Your task to perform on an android device: change your default location settings in chrome Image 0: 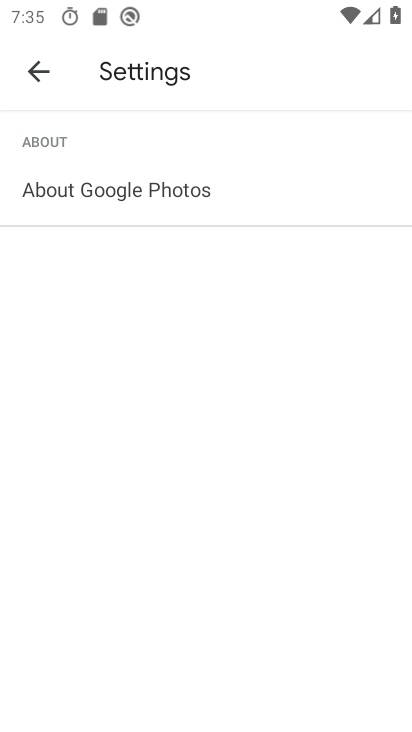
Step 0: press home button
Your task to perform on an android device: change your default location settings in chrome Image 1: 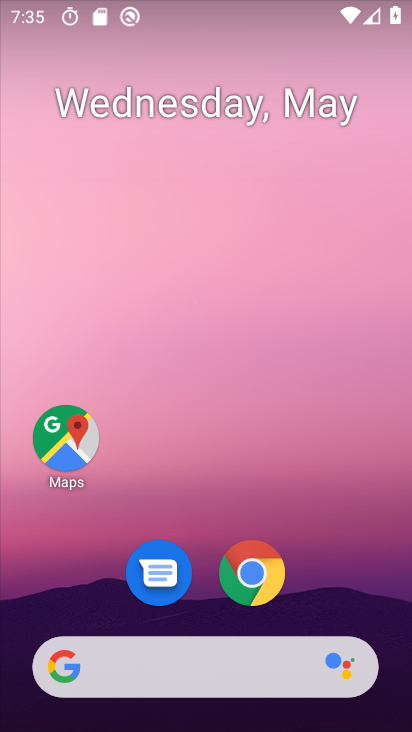
Step 1: click (252, 565)
Your task to perform on an android device: change your default location settings in chrome Image 2: 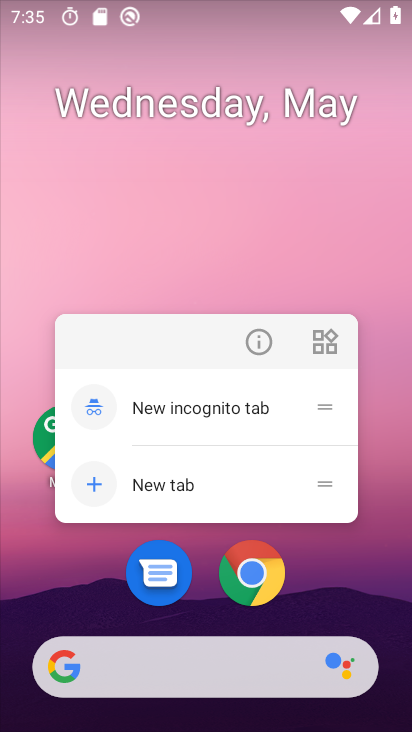
Step 2: click (255, 562)
Your task to perform on an android device: change your default location settings in chrome Image 3: 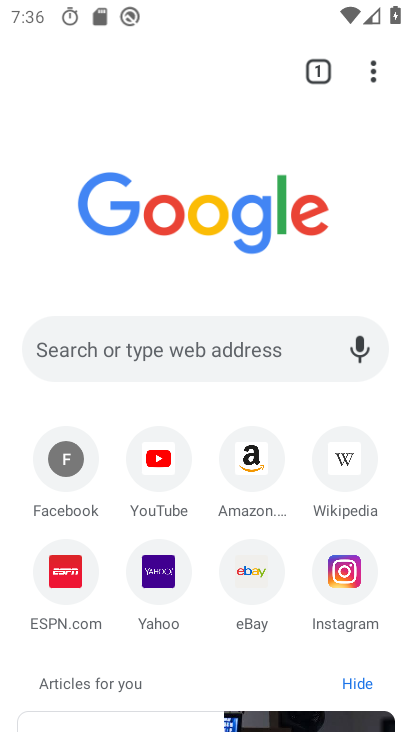
Step 3: click (374, 77)
Your task to perform on an android device: change your default location settings in chrome Image 4: 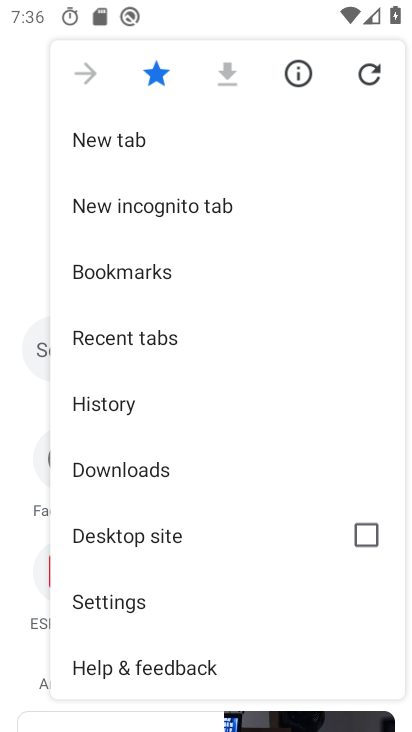
Step 4: click (158, 610)
Your task to perform on an android device: change your default location settings in chrome Image 5: 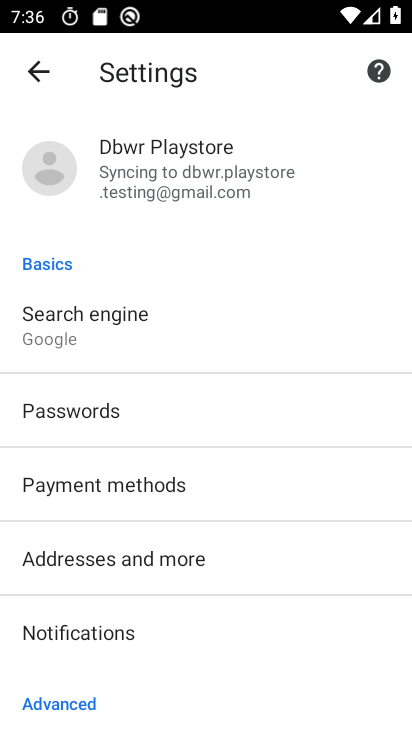
Step 5: drag from (214, 659) to (222, 276)
Your task to perform on an android device: change your default location settings in chrome Image 6: 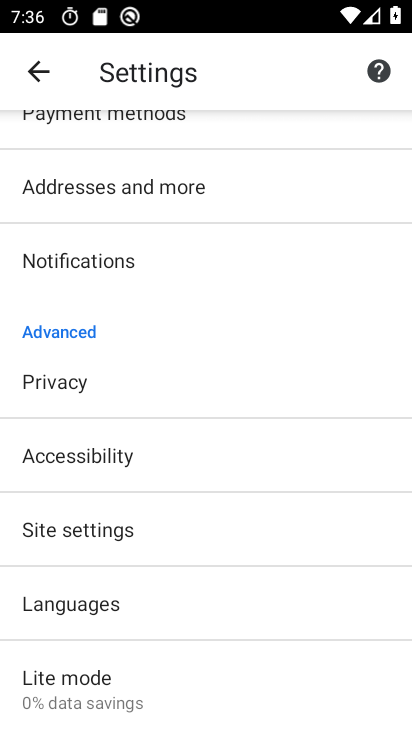
Step 6: click (178, 524)
Your task to perform on an android device: change your default location settings in chrome Image 7: 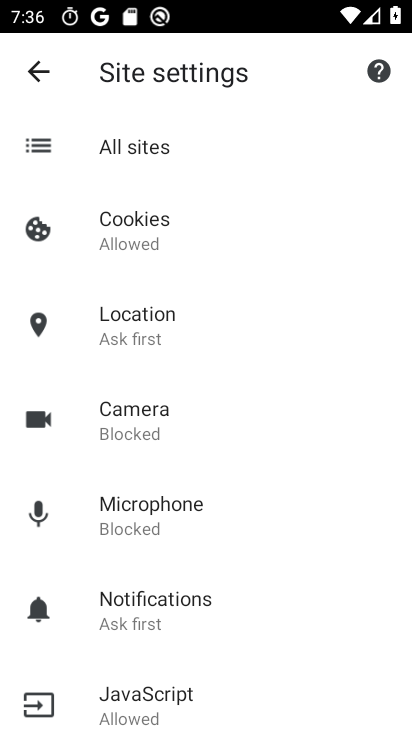
Step 7: click (244, 324)
Your task to perform on an android device: change your default location settings in chrome Image 8: 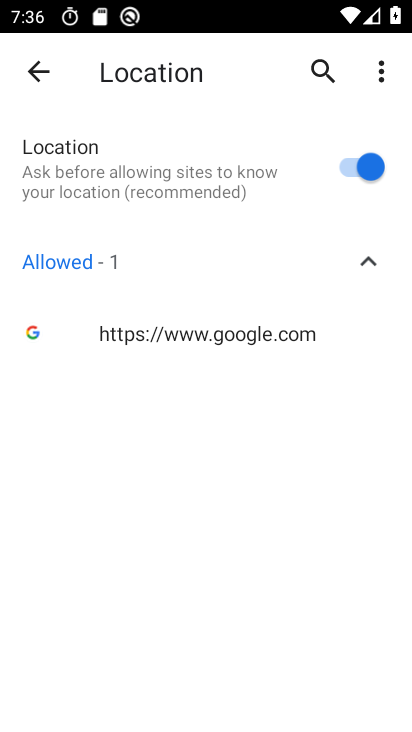
Step 8: click (363, 167)
Your task to perform on an android device: change your default location settings in chrome Image 9: 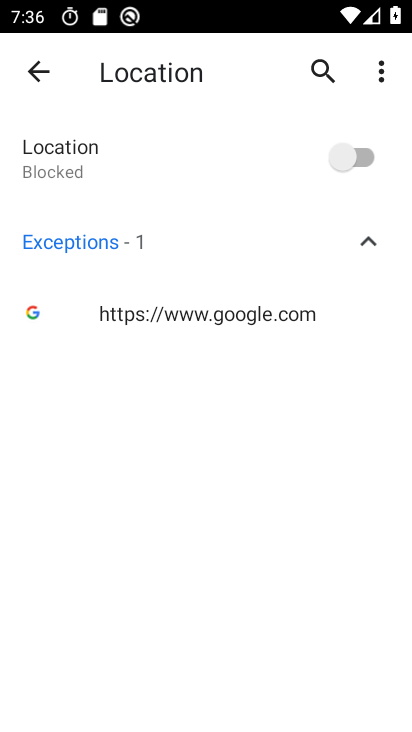
Step 9: task complete